Your task to perform on an android device: toggle sleep mode Image 0: 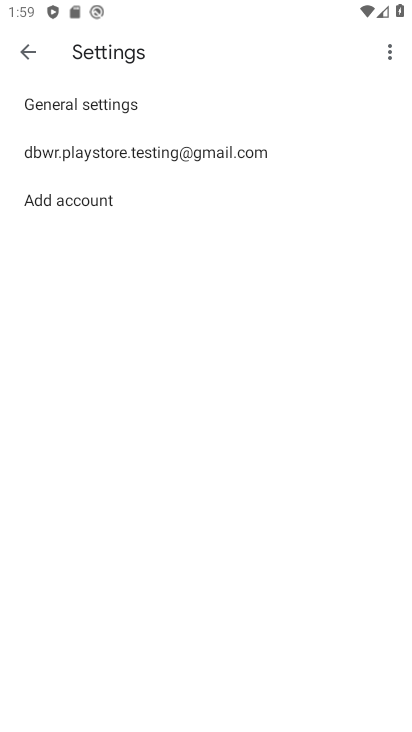
Step 0: press home button
Your task to perform on an android device: toggle sleep mode Image 1: 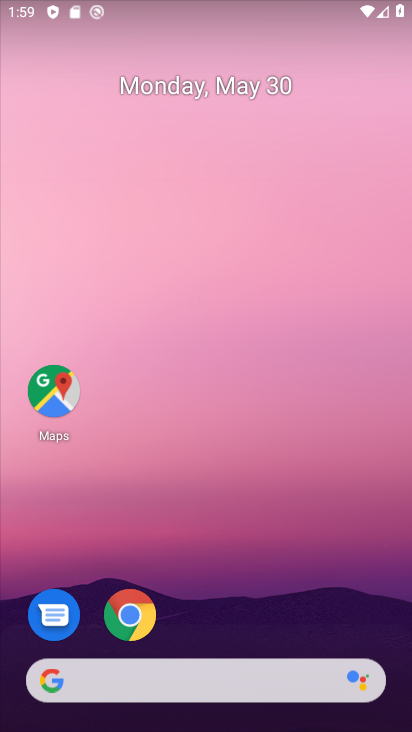
Step 1: drag from (185, 666) to (284, 132)
Your task to perform on an android device: toggle sleep mode Image 2: 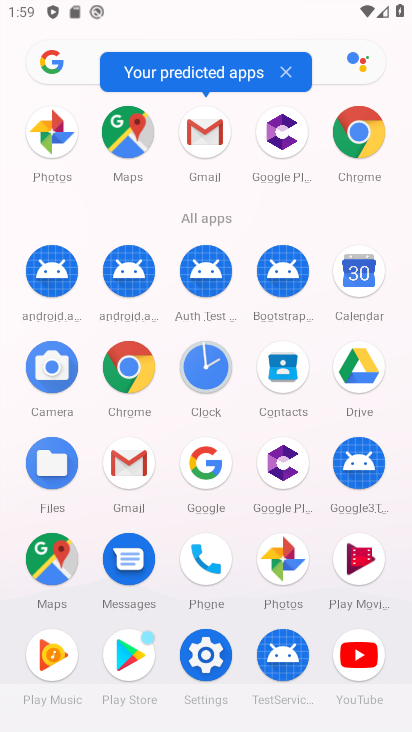
Step 2: drag from (154, 648) to (212, 459)
Your task to perform on an android device: toggle sleep mode Image 3: 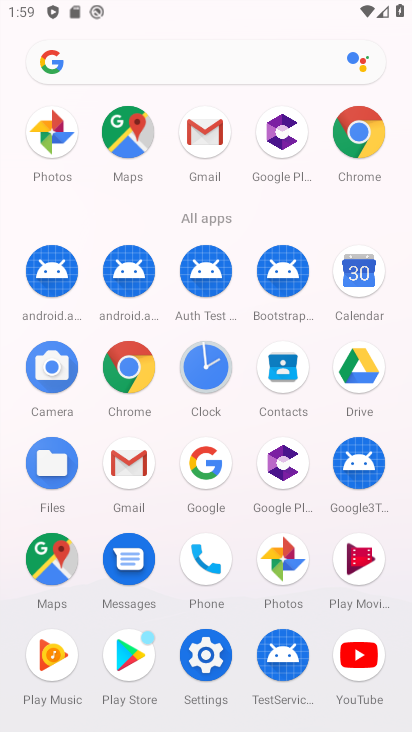
Step 3: click (222, 674)
Your task to perform on an android device: toggle sleep mode Image 4: 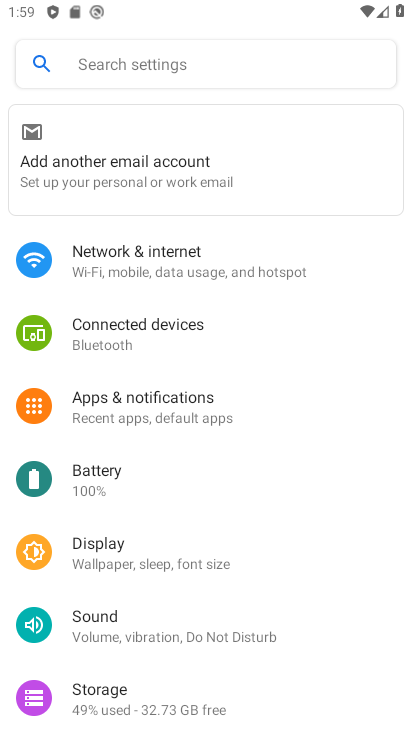
Step 4: click (134, 569)
Your task to perform on an android device: toggle sleep mode Image 5: 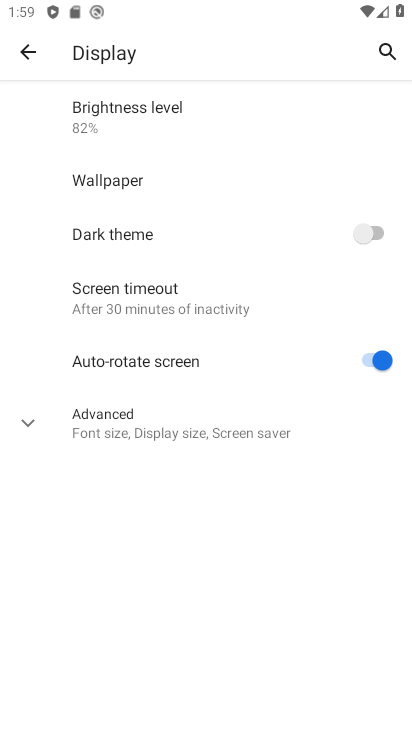
Step 5: click (187, 430)
Your task to perform on an android device: toggle sleep mode Image 6: 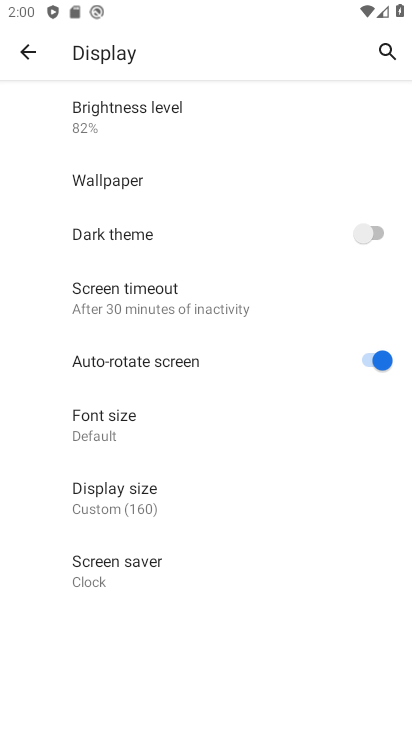
Step 6: task complete